Your task to perform on an android device: star an email in the gmail app Image 0: 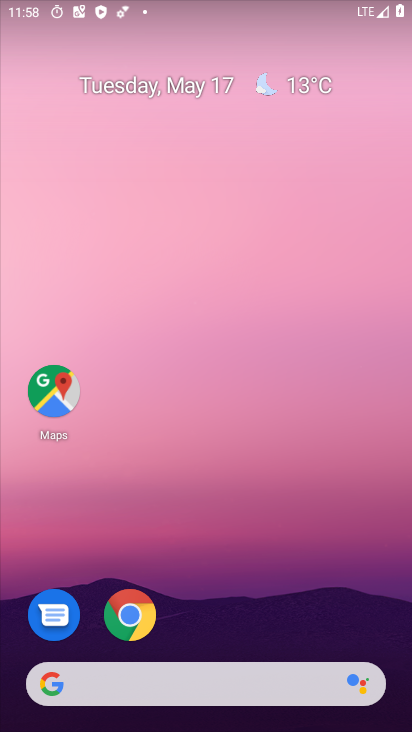
Step 0: press home button
Your task to perform on an android device: star an email in the gmail app Image 1: 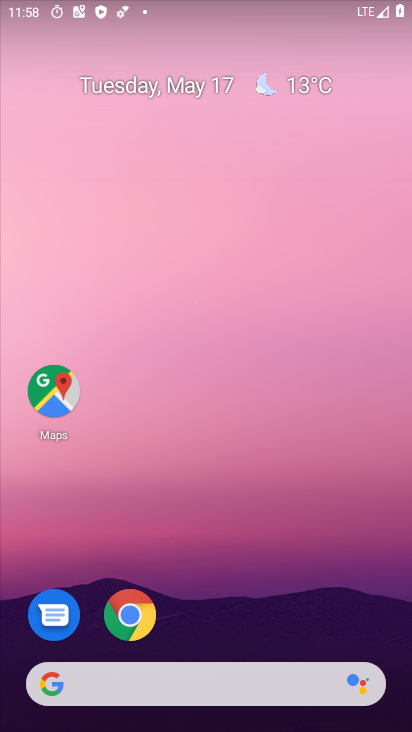
Step 1: drag from (98, 691) to (256, 146)
Your task to perform on an android device: star an email in the gmail app Image 2: 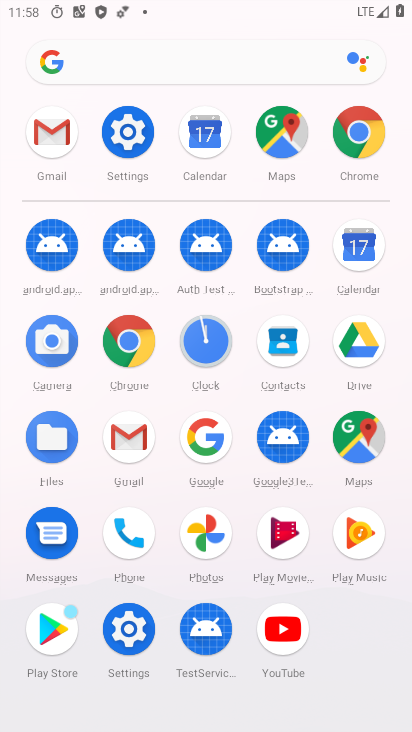
Step 2: click (43, 137)
Your task to perform on an android device: star an email in the gmail app Image 3: 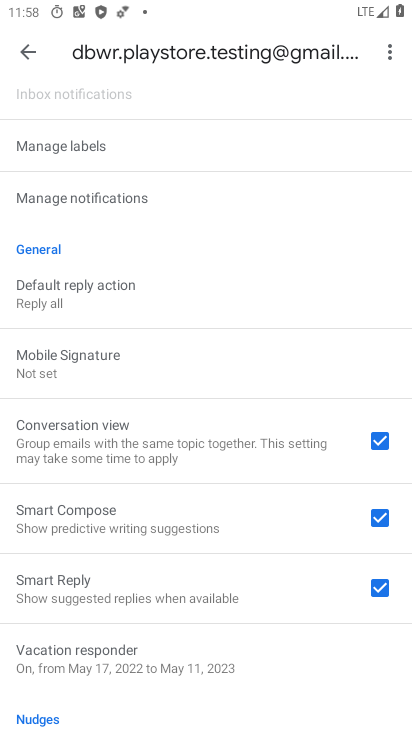
Step 3: click (23, 57)
Your task to perform on an android device: star an email in the gmail app Image 4: 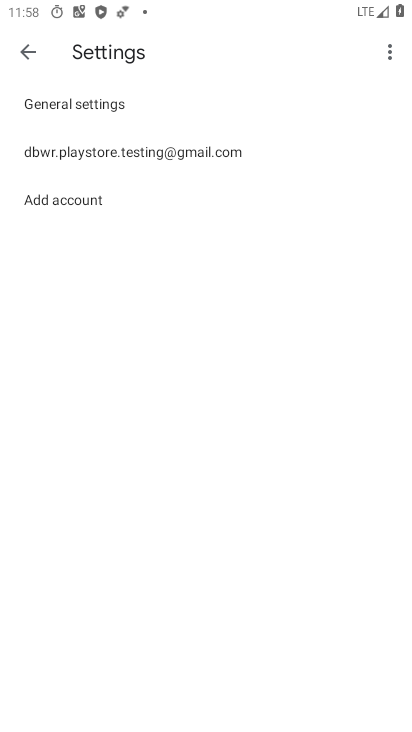
Step 4: click (23, 57)
Your task to perform on an android device: star an email in the gmail app Image 5: 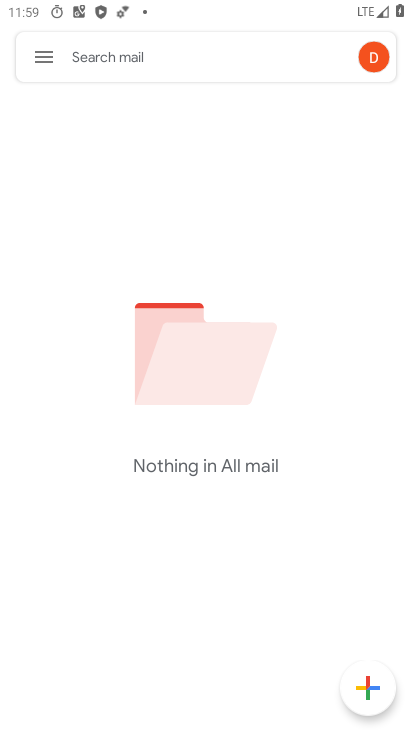
Step 5: task complete